Your task to perform on an android device: open app "Life360: Find Family & Friends" (install if not already installed) Image 0: 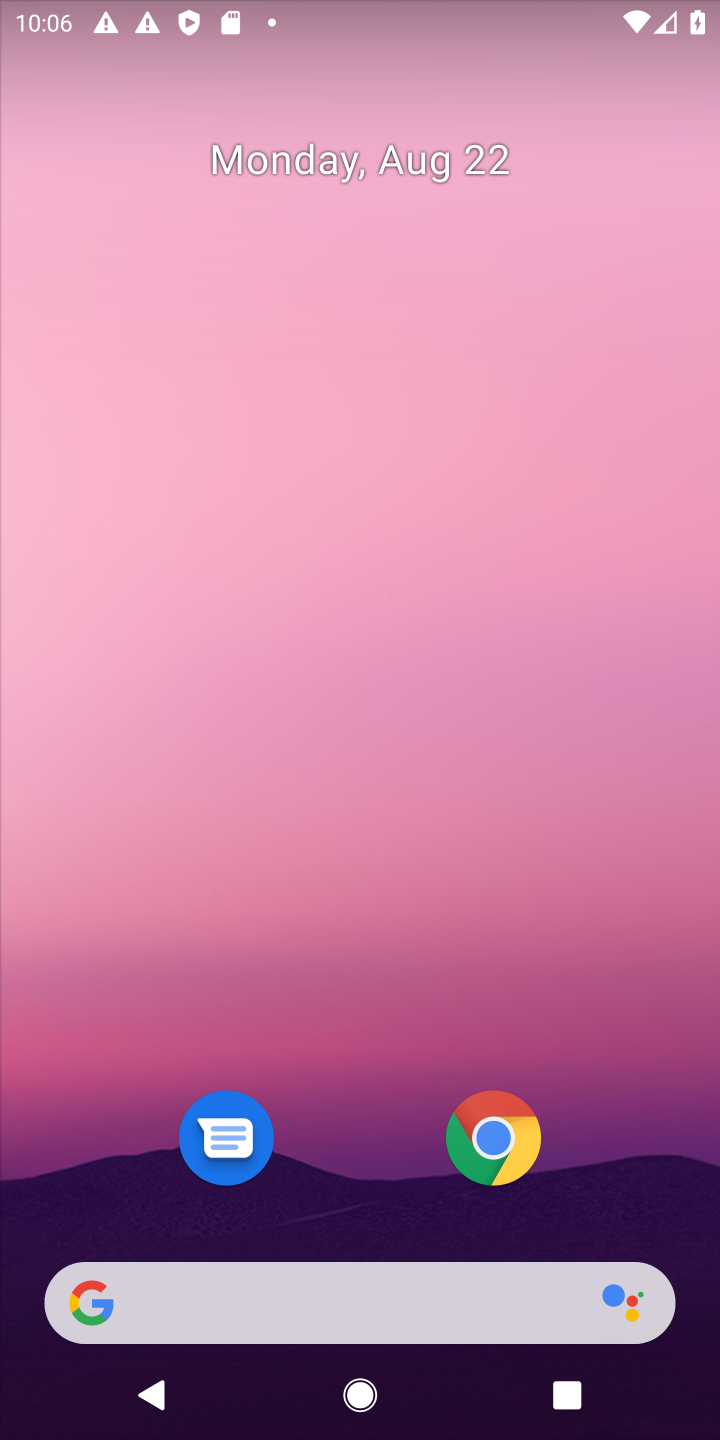
Step 0: press home button
Your task to perform on an android device: open app "Life360: Find Family & Friends" (install if not already installed) Image 1: 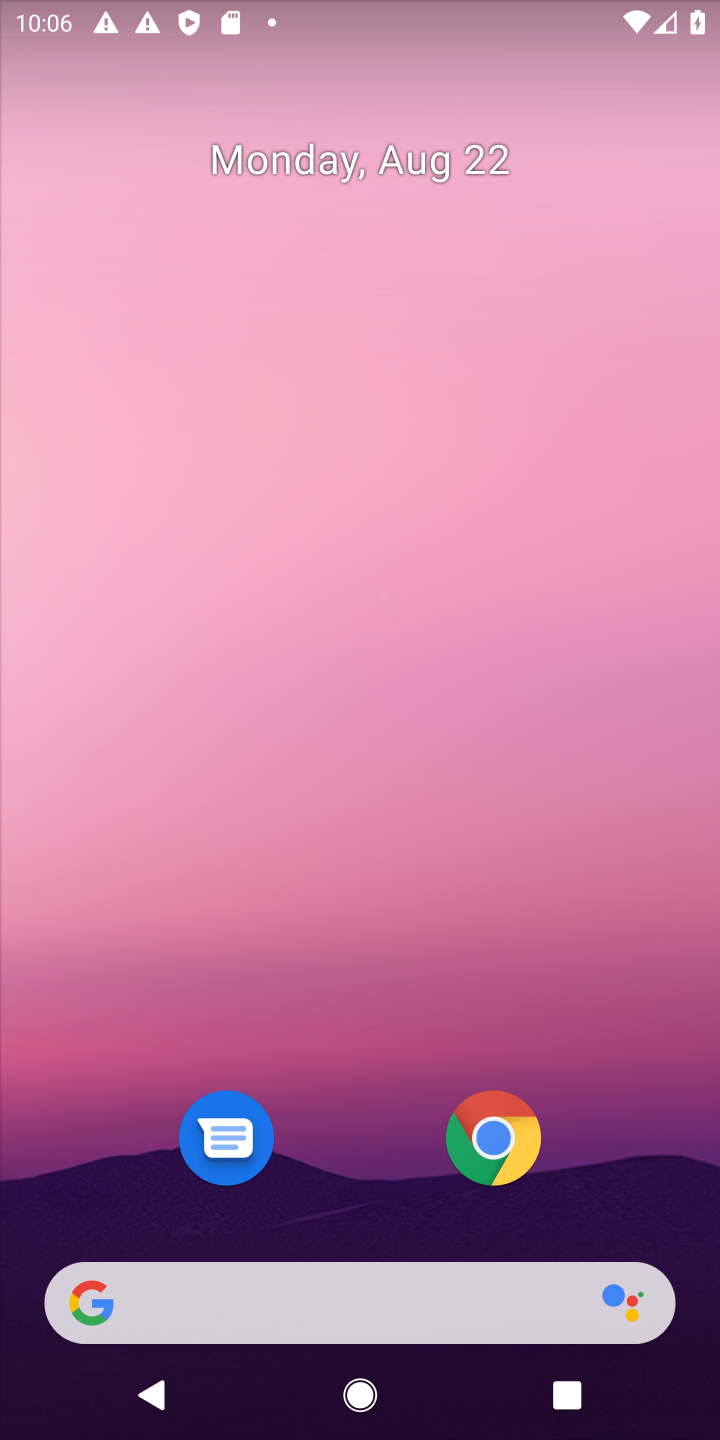
Step 1: drag from (647, 1208) to (607, 175)
Your task to perform on an android device: open app "Life360: Find Family & Friends" (install if not already installed) Image 2: 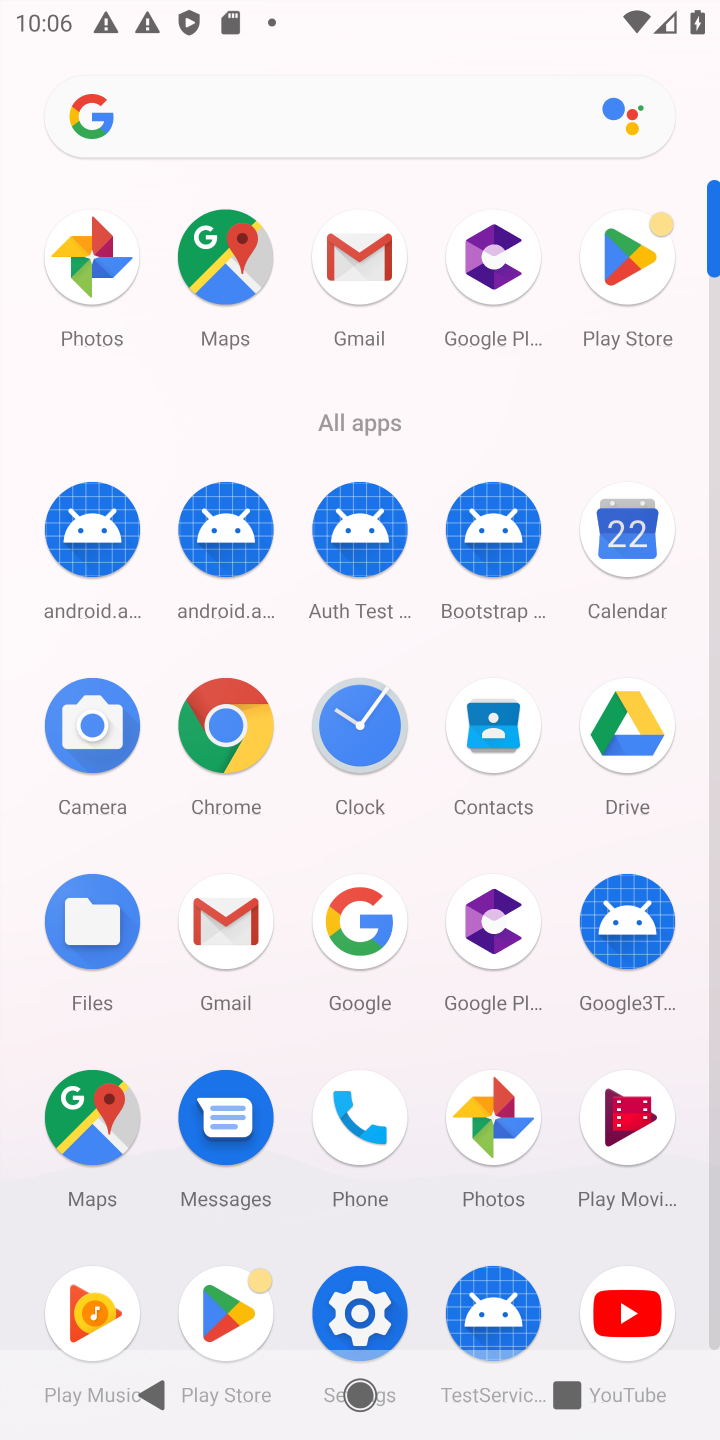
Step 2: click (611, 246)
Your task to perform on an android device: open app "Life360: Find Family & Friends" (install if not already installed) Image 3: 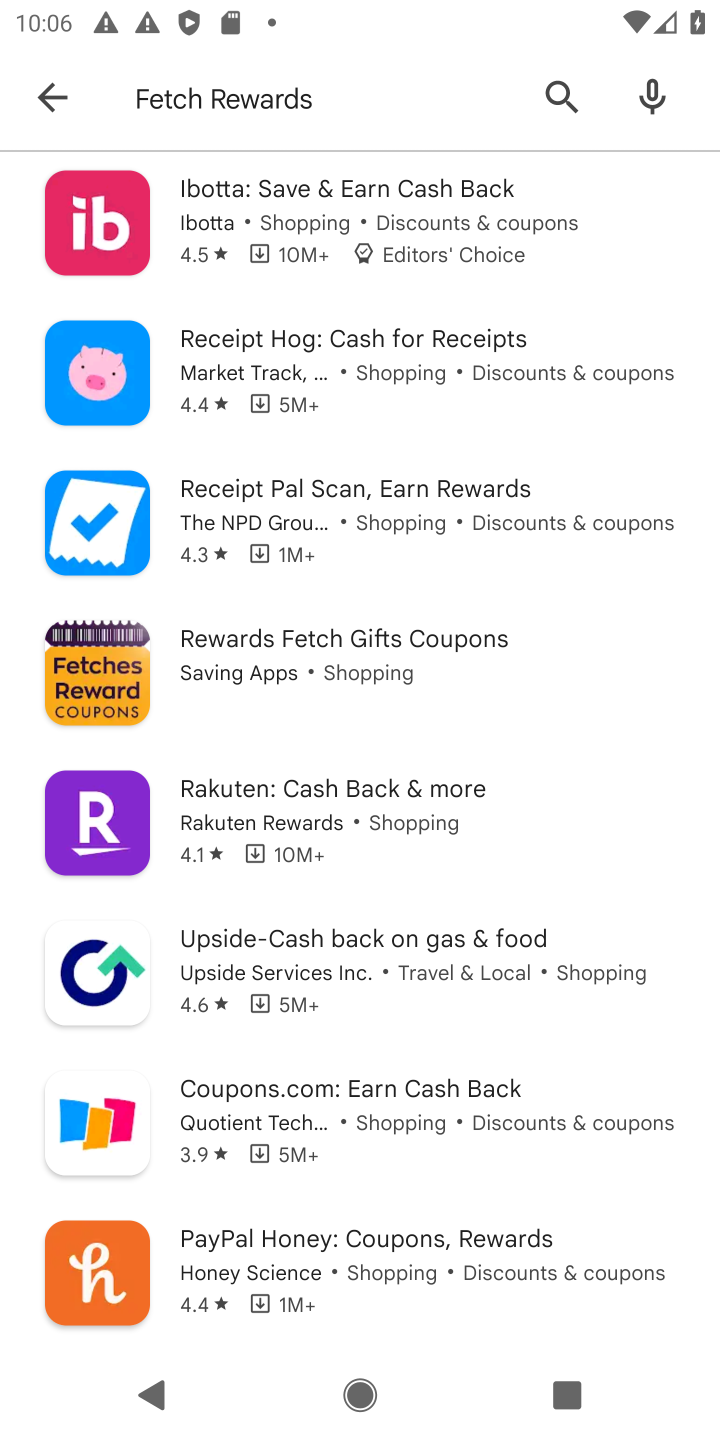
Step 3: press back button
Your task to perform on an android device: open app "Life360: Find Family & Friends" (install if not already installed) Image 4: 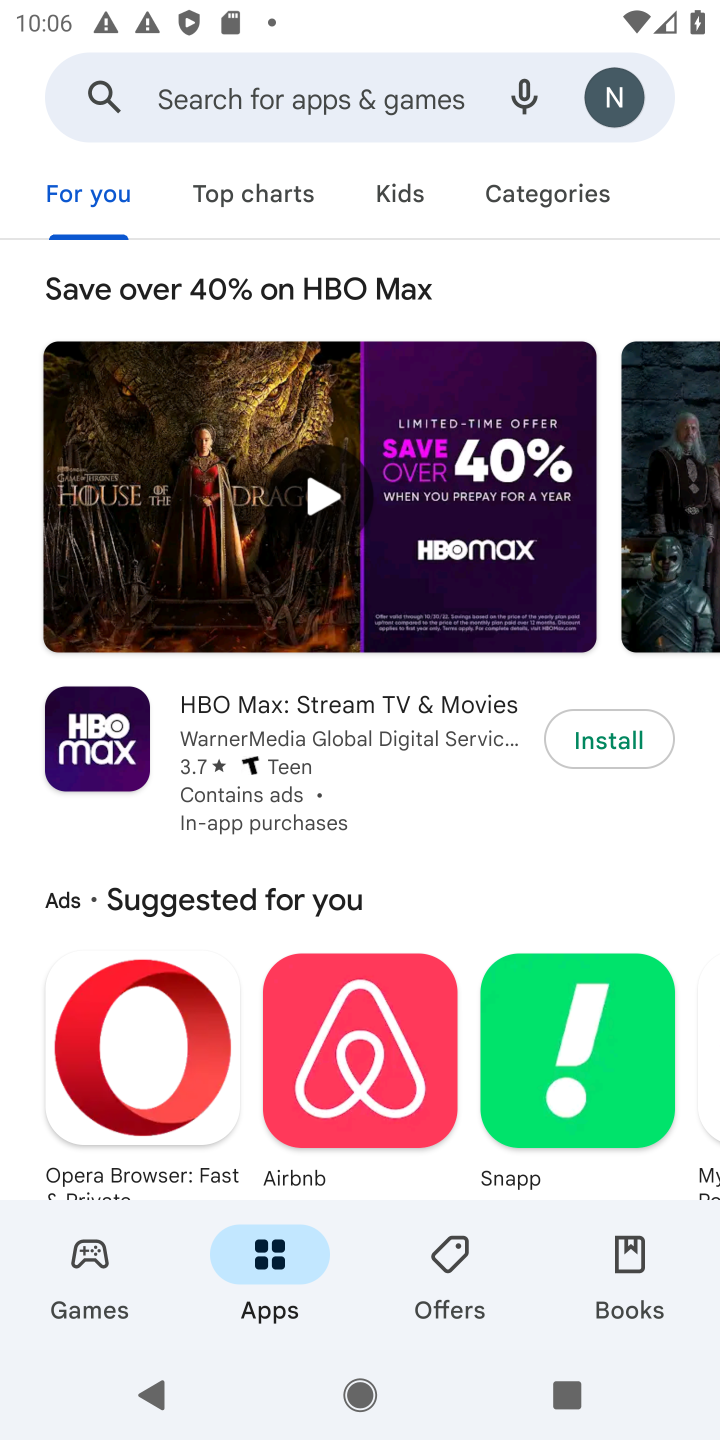
Step 4: click (275, 95)
Your task to perform on an android device: open app "Life360: Find Family & Friends" (install if not already installed) Image 5: 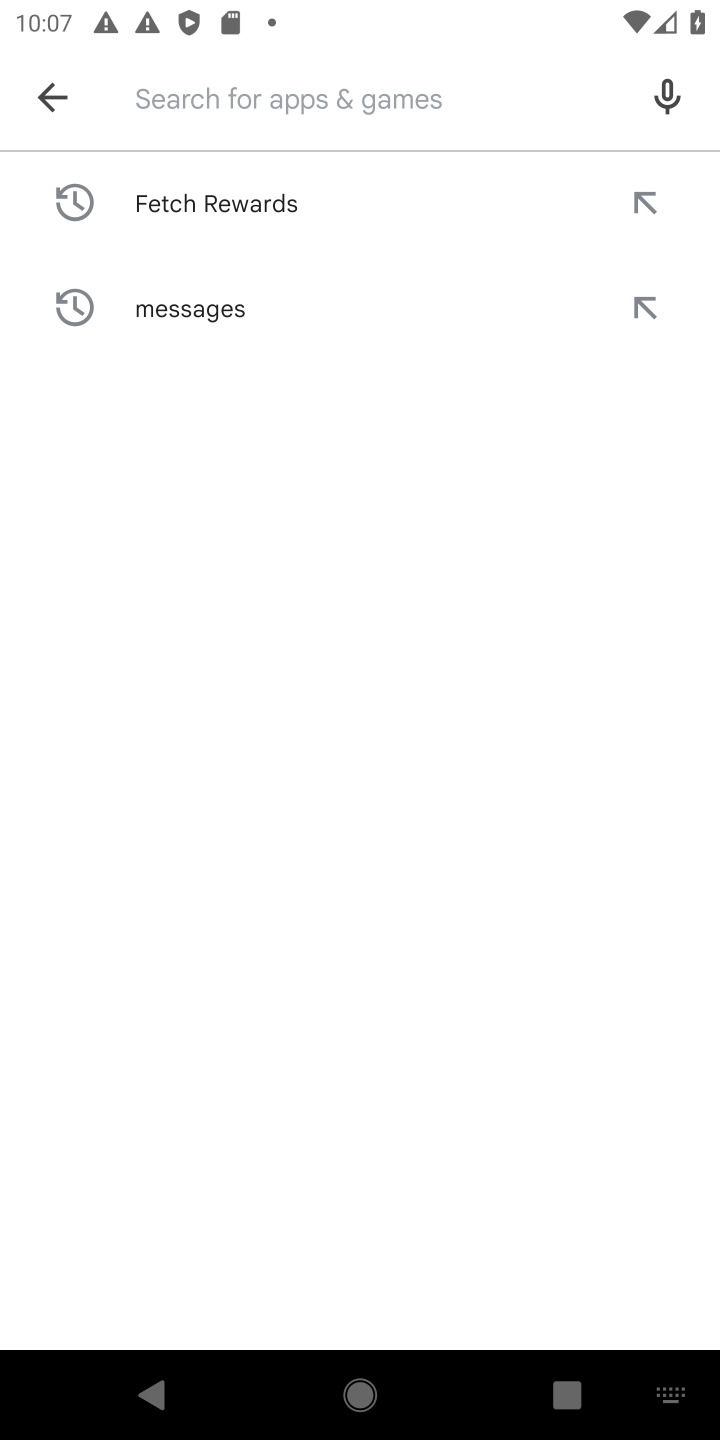
Step 5: press enter
Your task to perform on an android device: open app "Life360: Find Family & Friends" (install if not already installed) Image 6: 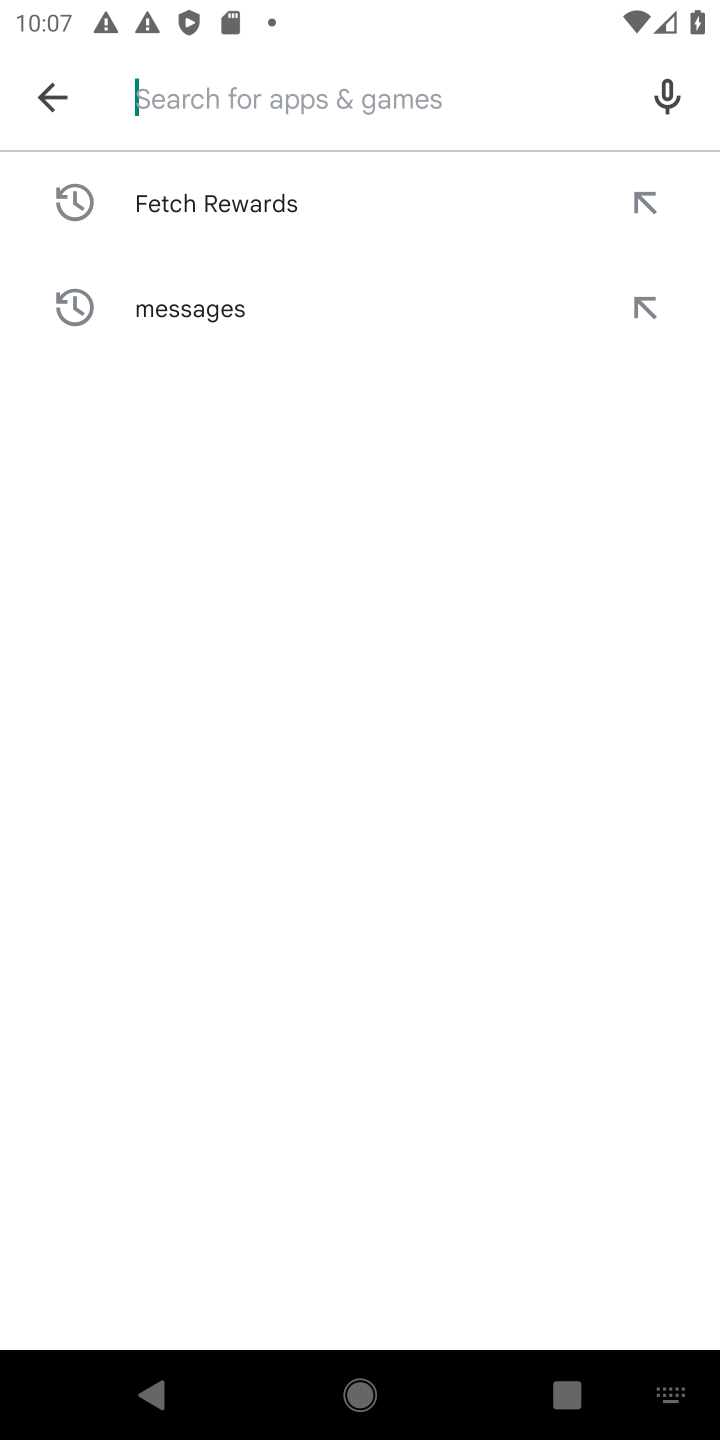
Step 6: type "Life360: Find Family & Friends"
Your task to perform on an android device: open app "Life360: Find Family & Friends" (install if not already installed) Image 7: 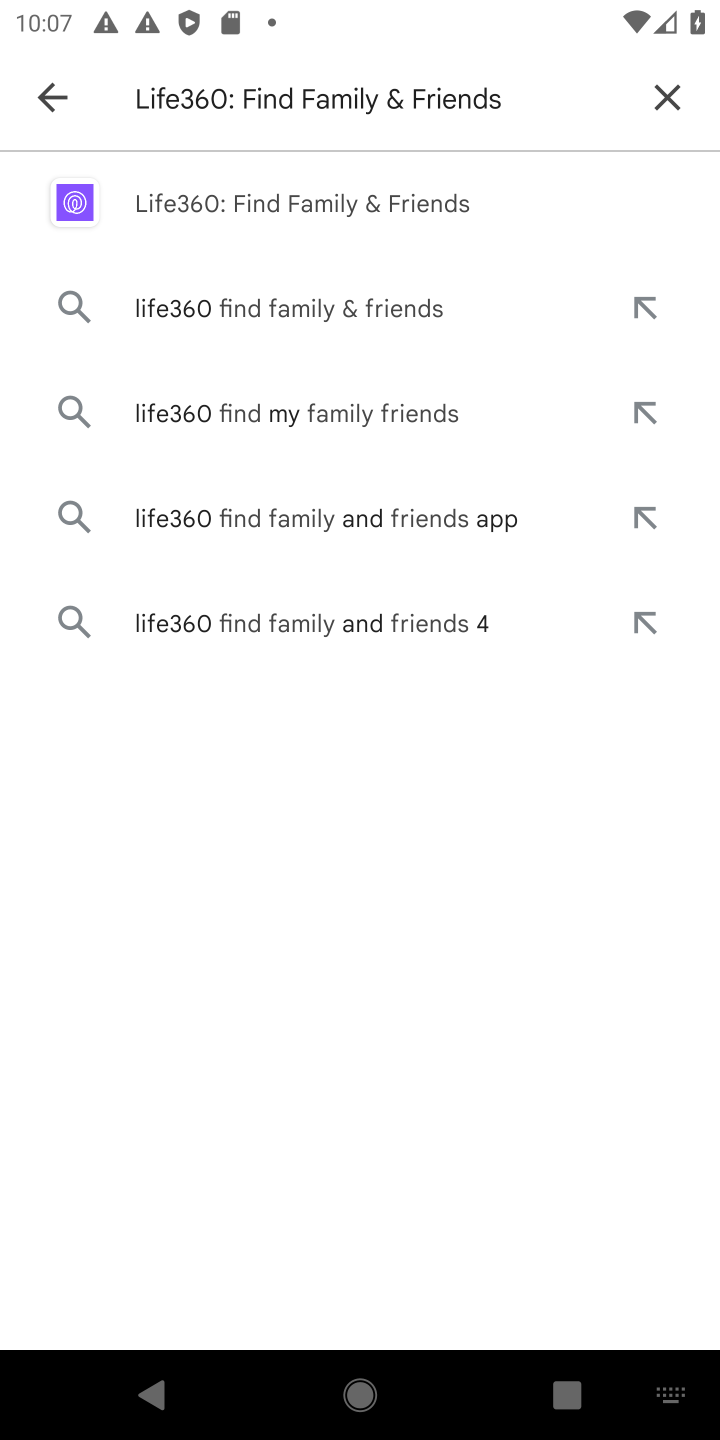
Step 7: click (314, 204)
Your task to perform on an android device: open app "Life360: Find Family & Friends" (install if not already installed) Image 8: 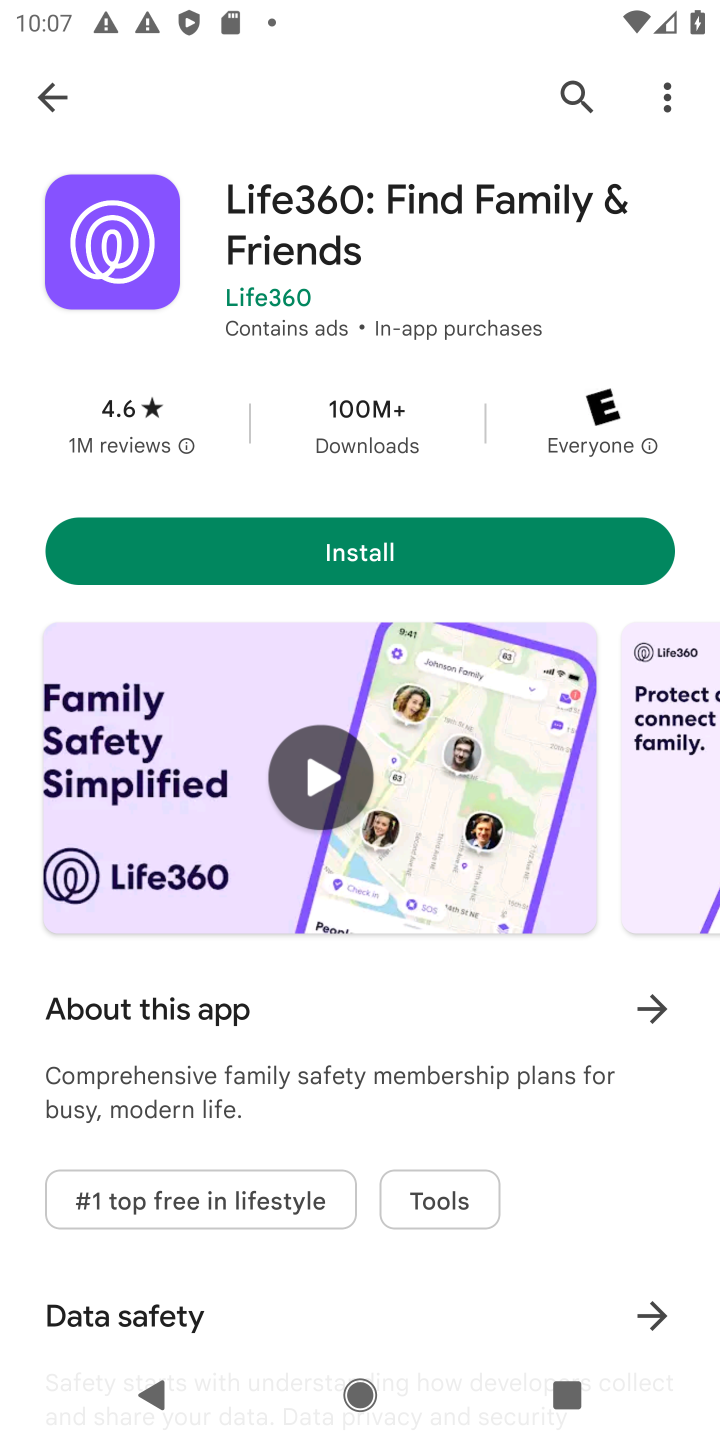
Step 8: click (426, 559)
Your task to perform on an android device: open app "Life360: Find Family & Friends" (install if not already installed) Image 9: 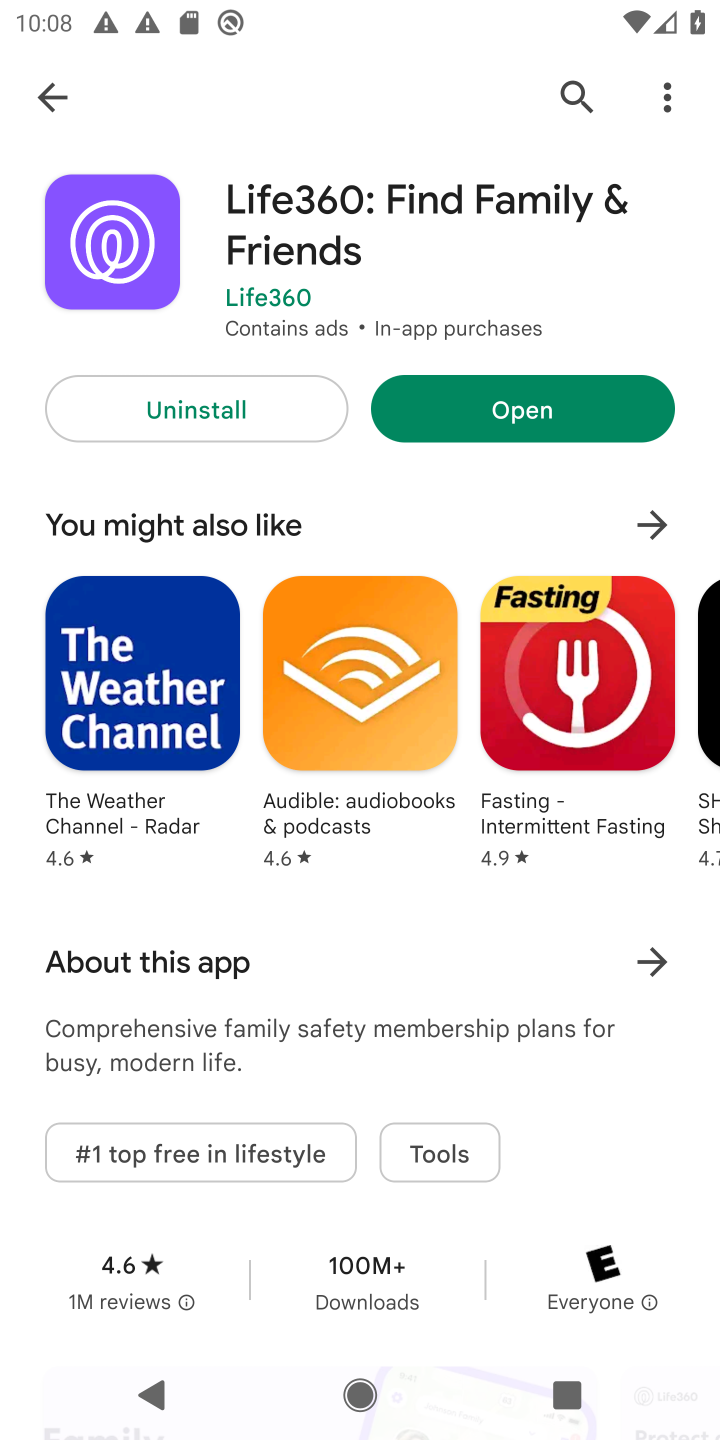
Step 9: click (609, 410)
Your task to perform on an android device: open app "Life360: Find Family & Friends" (install if not already installed) Image 10: 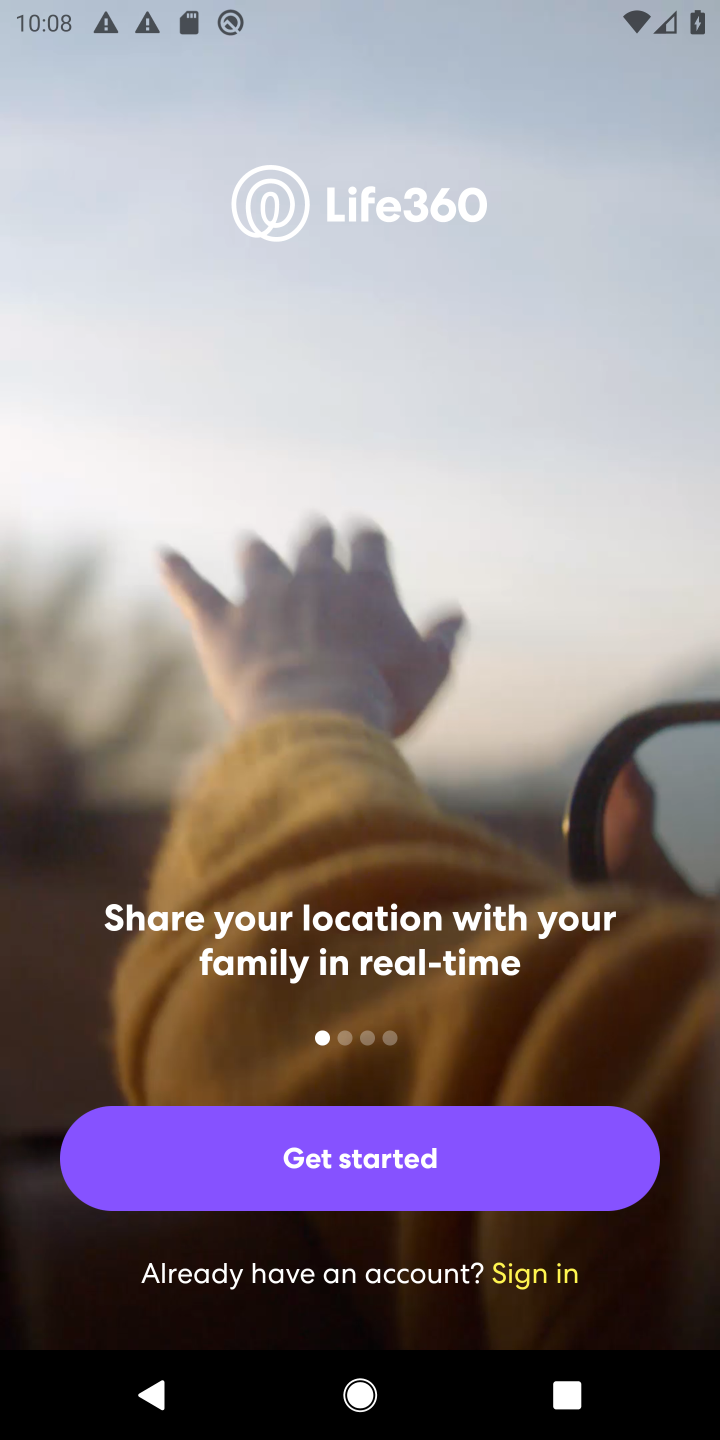
Step 10: task complete